Your task to perform on an android device: show emergency info Image 0: 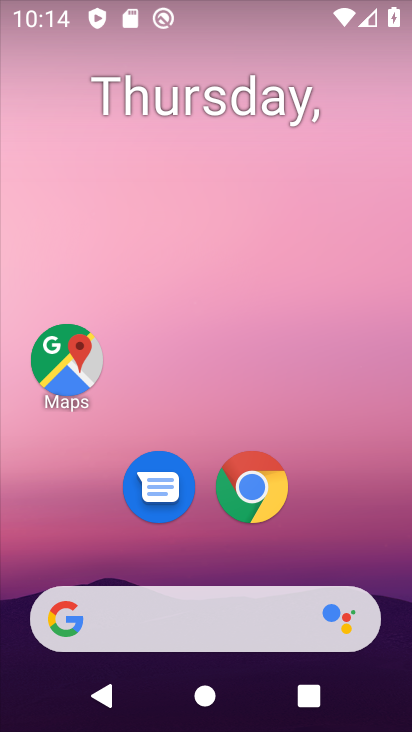
Step 0: drag from (327, 533) to (131, 192)
Your task to perform on an android device: show emergency info Image 1: 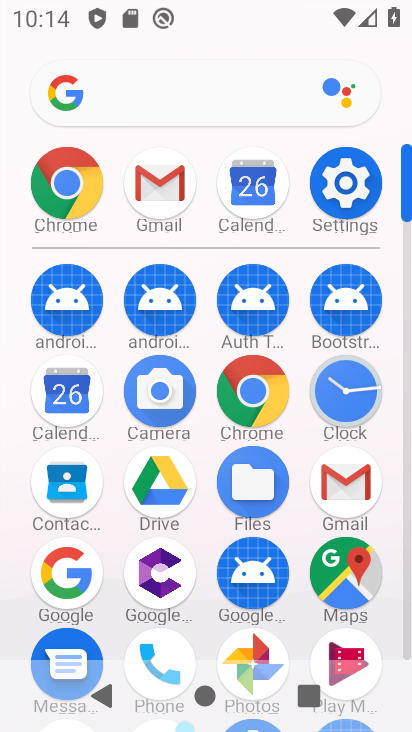
Step 1: click (353, 194)
Your task to perform on an android device: show emergency info Image 2: 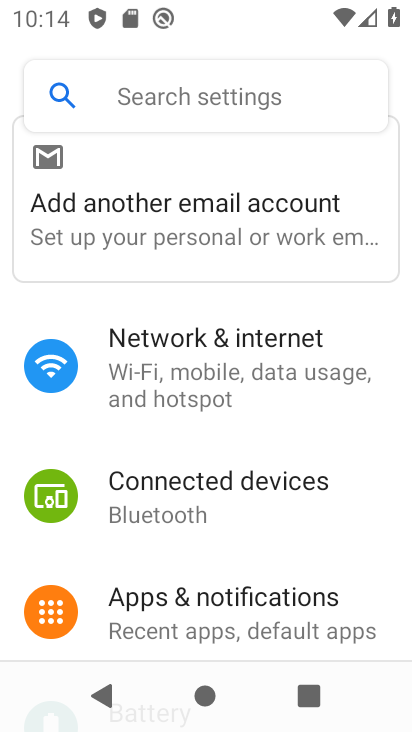
Step 2: drag from (291, 523) to (229, 149)
Your task to perform on an android device: show emergency info Image 3: 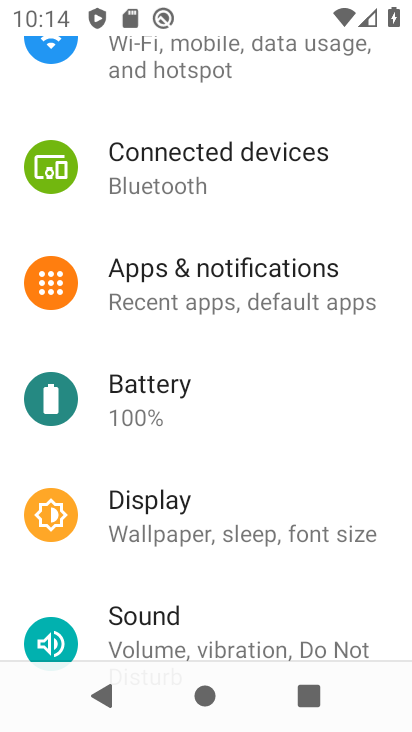
Step 3: drag from (209, 578) to (201, 124)
Your task to perform on an android device: show emergency info Image 4: 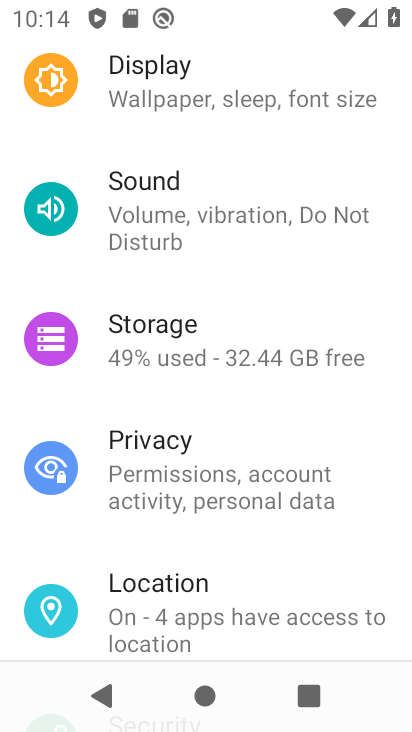
Step 4: drag from (219, 554) to (215, 201)
Your task to perform on an android device: show emergency info Image 5: 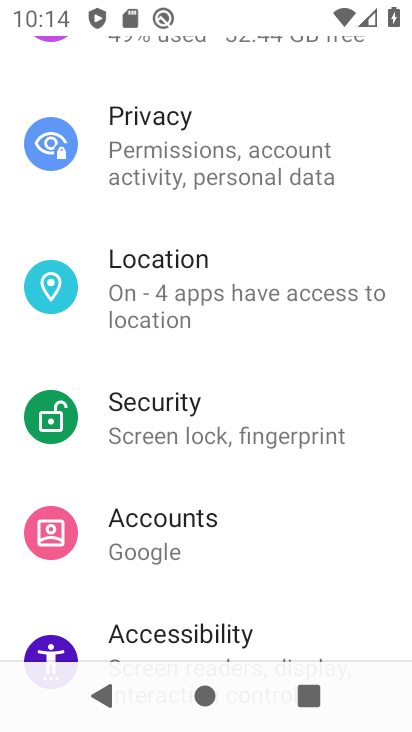
Step 5: drag from (197, 578) to (274, 161)
Your task to perform on an android device: show emergency info Image 6: 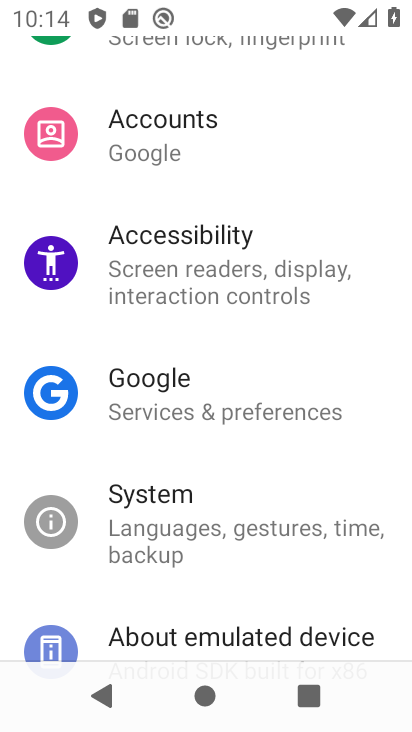
Step 6: drag from (235, 555) to (260, 287)
Your task to perform on an android device: show emergency info Image 7: 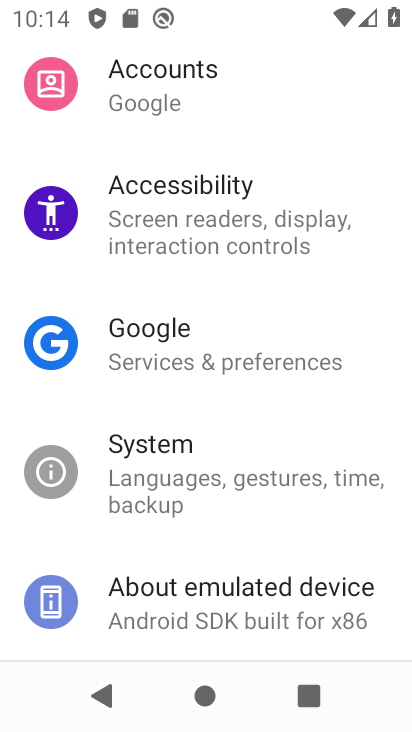
Step 7: click (226, 601)
Your task to perform on an android device: show emergency info Image 8: 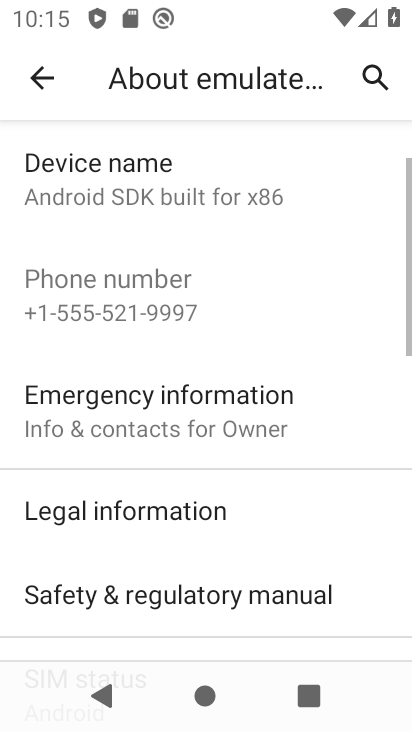
Step 8: click (236, 400)
Your task to perform on an android device: show emergency info Image 9: 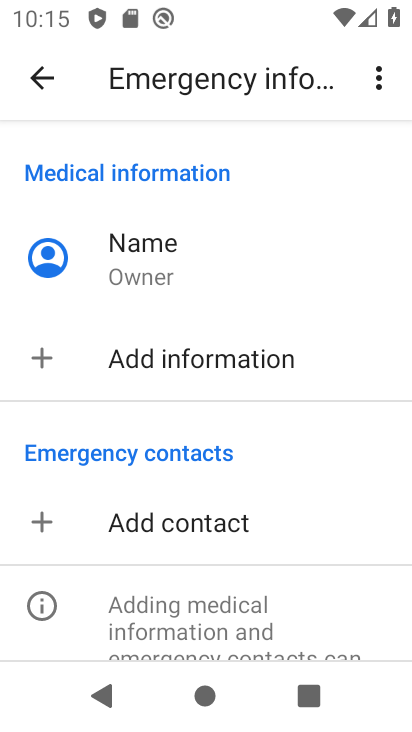
Step 9: task complete